Your task to perform on an android device: delete browsing data in the chrome app Image 0: 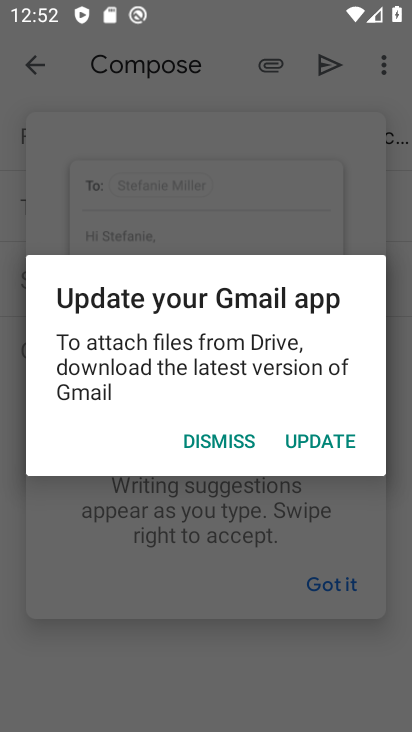
Step 0: press back button
Your task to perform on an android device: delete browsing data in the chrome app Image 1: 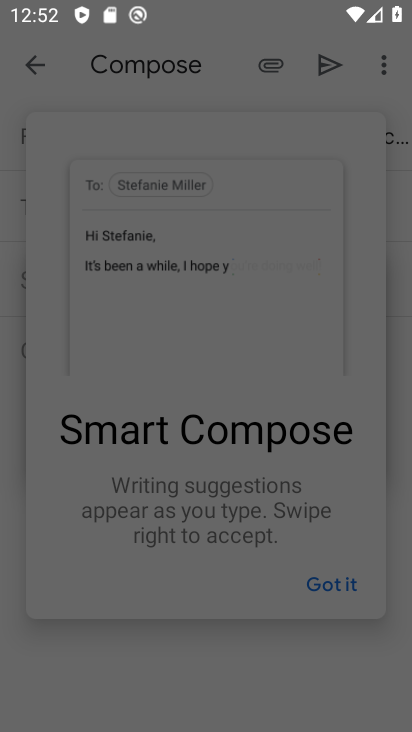
Step 1: press back button
Your task to perform on an android device: delete browsing data in the chrome app Image 2: 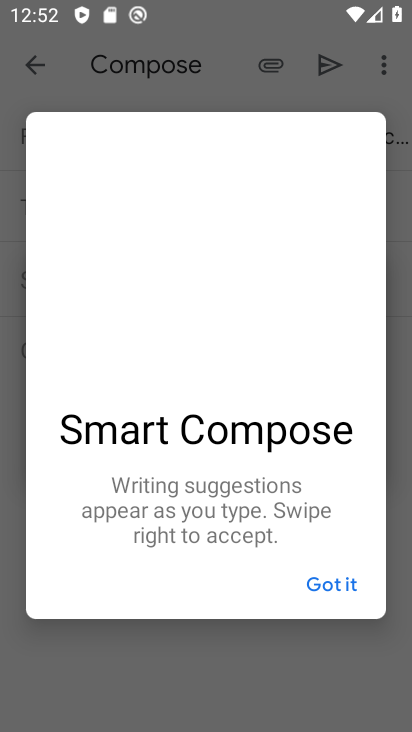
Step 2: press home button
Your task to perform on an android device: delete browsing data in the chrome app Image 3: 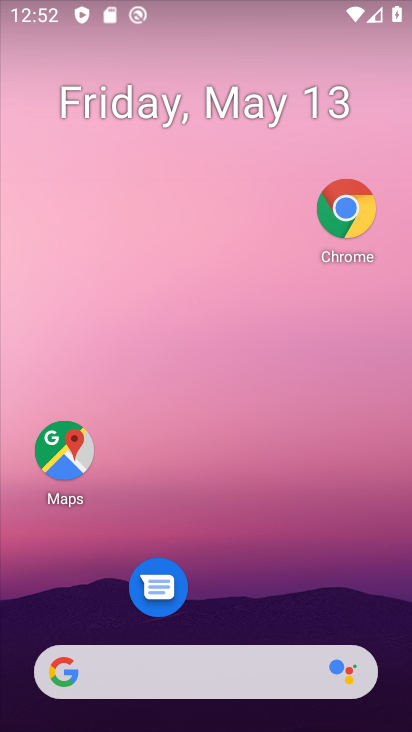
Step 3: click (348, 204)
Your task to perform on an android device: delete browsing data in the chrome app Image 4: 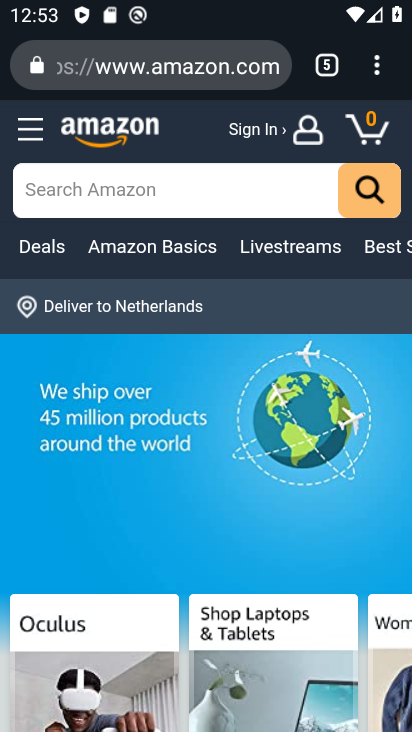
Step 4: drag from (371, 62) to (174, 379)
Your task to perform on an android device: delete browsing data in the chrome app Image 5: 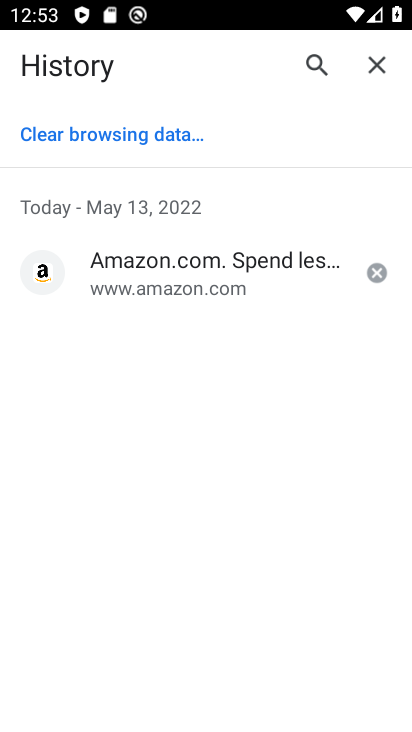
Step 5: click (86, 124)
Your task to perform on an android device: delete browsing data in the chrome app Image 6: 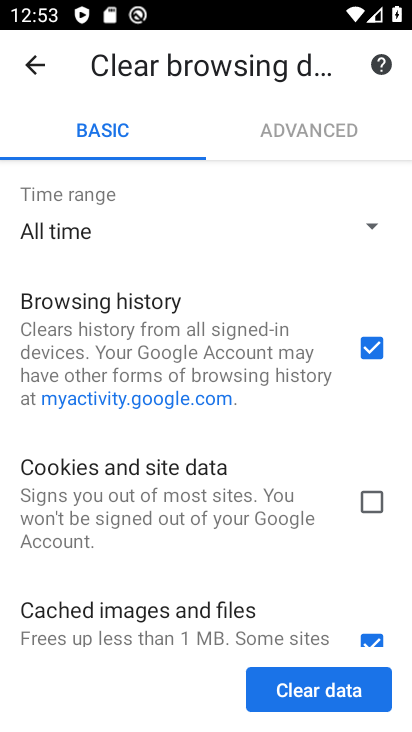
Step 6: click (299, 695)
Your task to perform on an android device: delete browsing data in the chrome app Image 7: 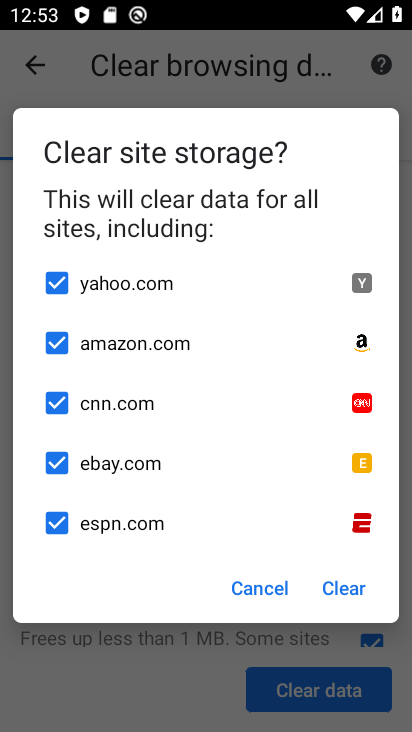
Step 7: click (355, 582)
Your task to perform on an android device: delete browsing data in the chrome app Image 8: 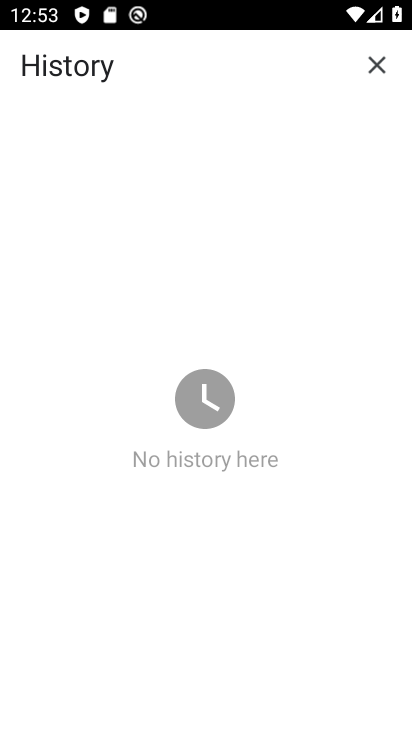
Step 8: task complete